Your task to perform on an android device: turn off picture-in-picture Image 0: 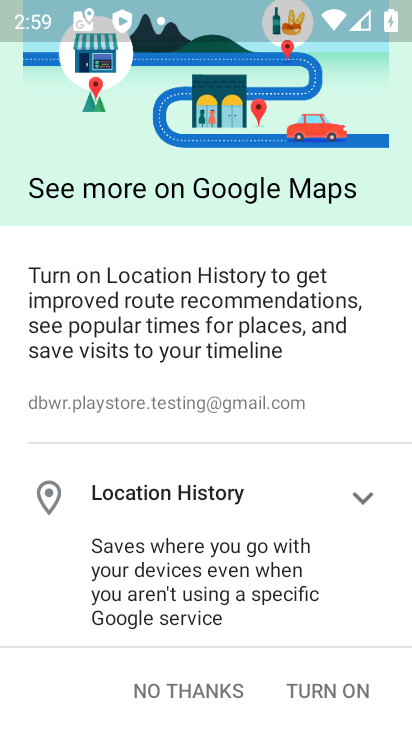
Step 0: press home button
Your task to perform on an android device: turn off picture-in-picture Image 1: 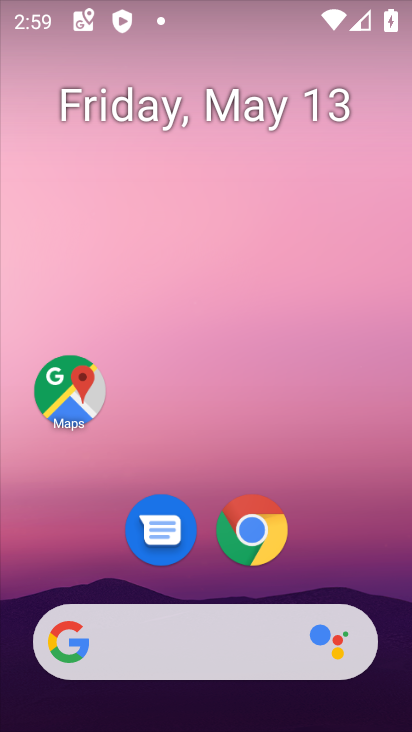
Step 1: click (263, 541)
Your task to perform on an android device: turn off picture-in-picture Image 2: 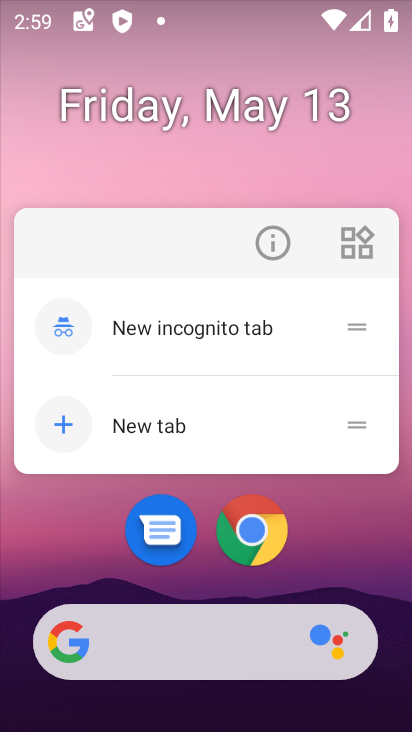
Step 2: click (283, 239)
Your task to perform on an android device: turn off picture-in-picture Image 3: 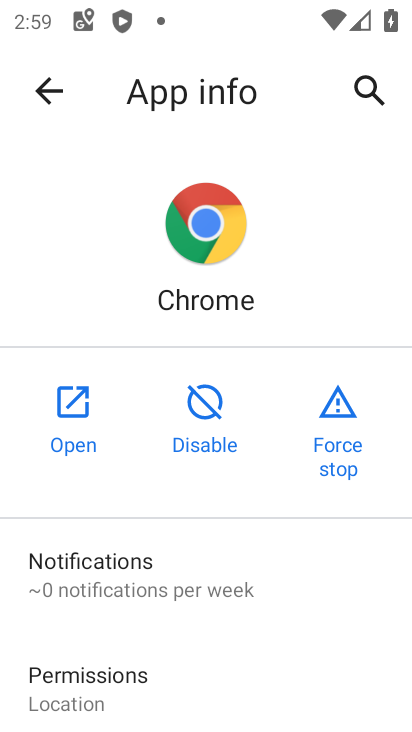
Step 3: drag from (167, 438) to (166, 5)
Your task to perform on an android device: turn off picture-in-picture Image 4: 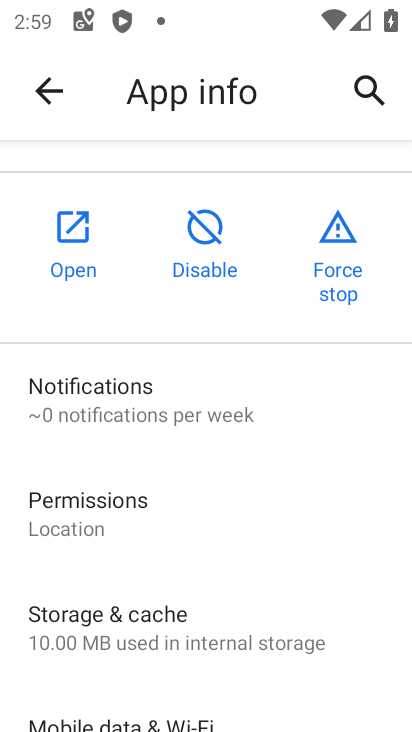
Step 4: drag from (195, 618) to (149, 174)
Your task to perform on an android device: turn off picture-in-picture Image 5: 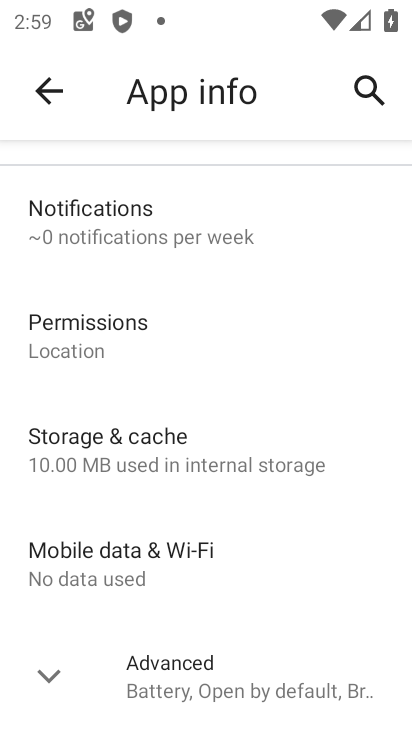
Step 5: click (174, 682)
Your task to perform on an android device: turn off picture-in-picture Image 6: 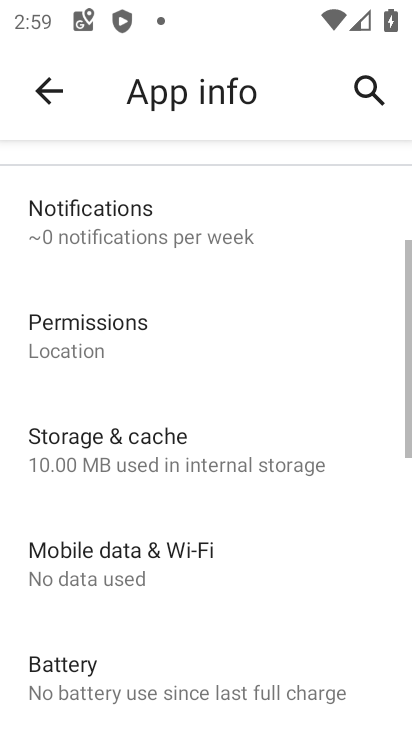
Step 6: drag from (291, 618) to (253, 181)
Your task to perform on an android device: turn off picture-in-picture Image 7: 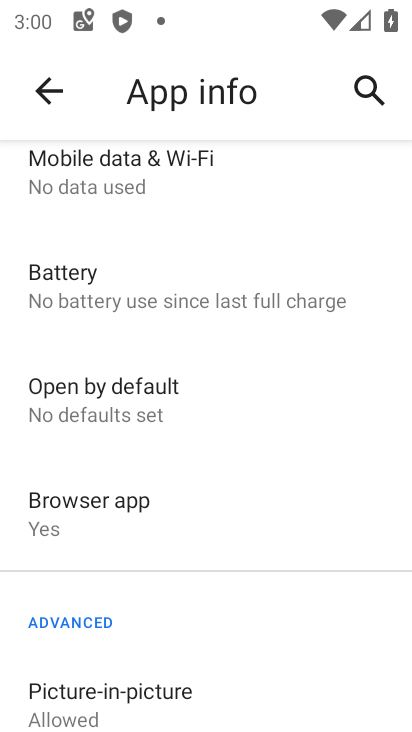
Step 7: drag from (225, 641) to (237, 233)
Your task to perform on an android device: turn off picture-in-picture Image 8: 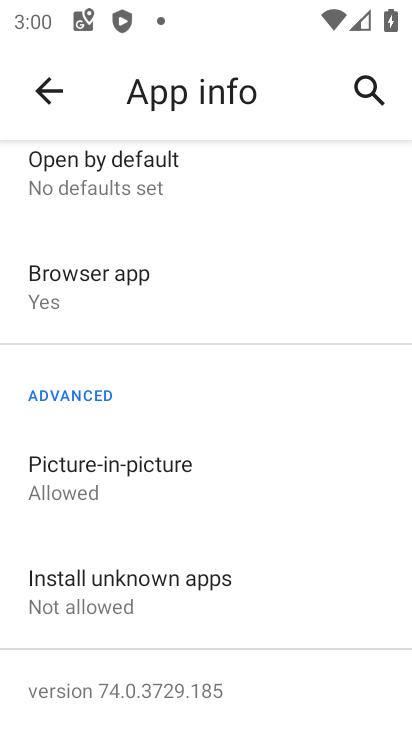
Step 8: click (177, 474)
Your task to perform on an android device: turn off picture-in-picture Image 9: 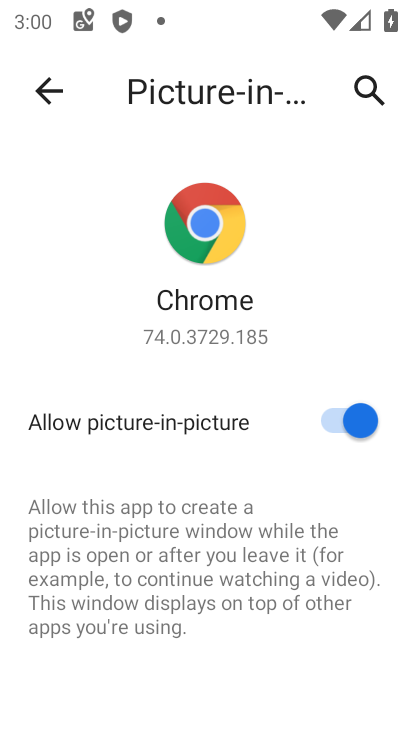
Step 9: click (338, 422)
Your task to perform on an android device: turn off picture-in-picture Image 10: 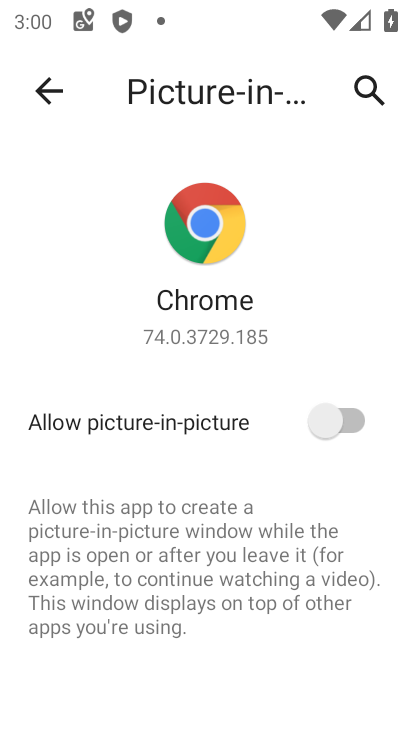
Step 10: task complete